Your task to perform on an android device: add a contact in the contacts app Image 0: 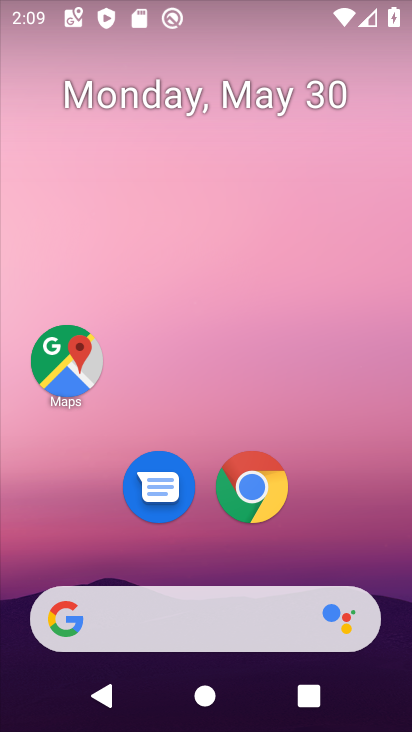
Step 0: drag from (234, 569) to (173, 8)
Your task to perform on an android device: add a contact in the contacts app Image 1: 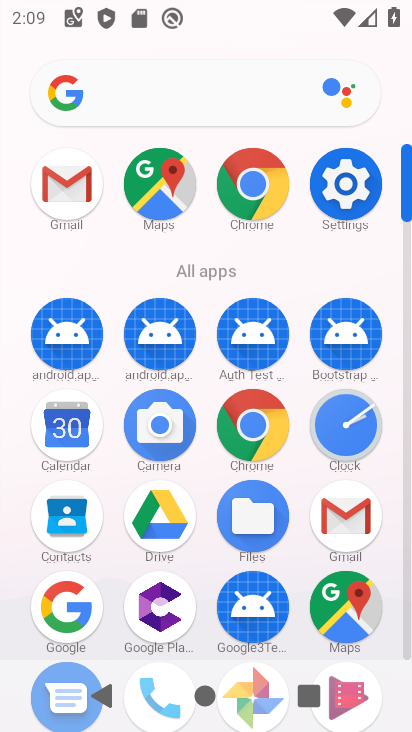
Step 1: click (71, 530)
Your task to perform on an android device: add a contact in the contacts app Image 2: 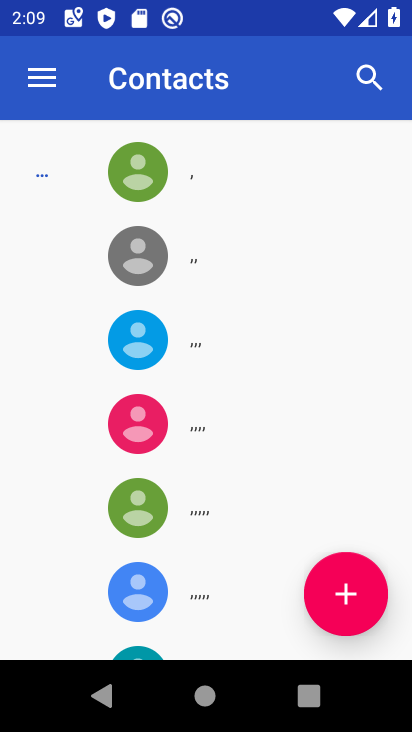
Step 2: click (337, 626)
Your task to perform on an android device: add a contact in the contacts app Image 3: 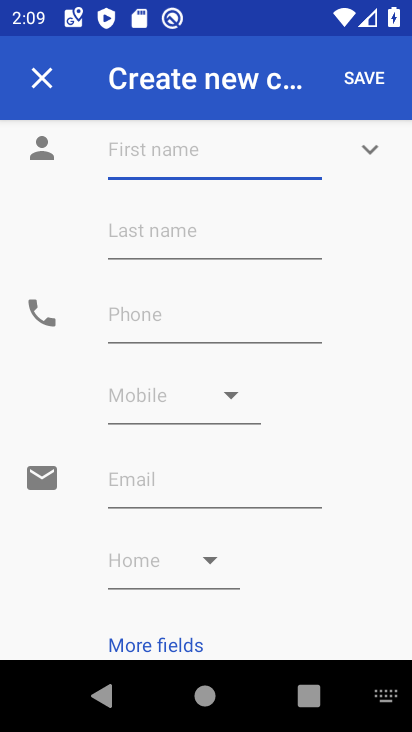
Step 3: type "Varuna"
Your task to perform on an android device: add a contact in the contacts app Image 4: 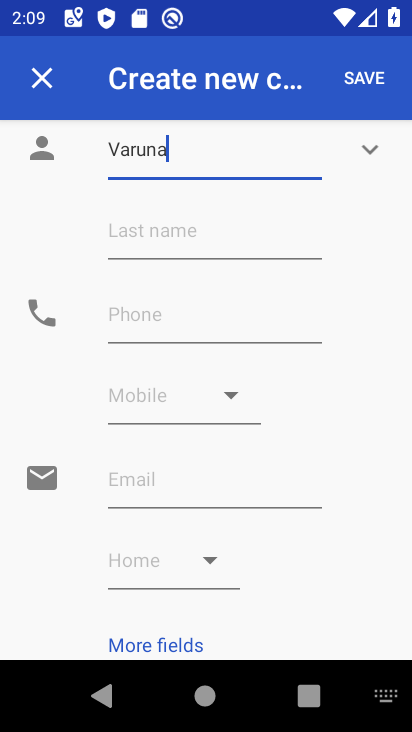
Step 4: click (250, 234)
Your task to perform on an android device: add a contact in the contacts app Image 5: 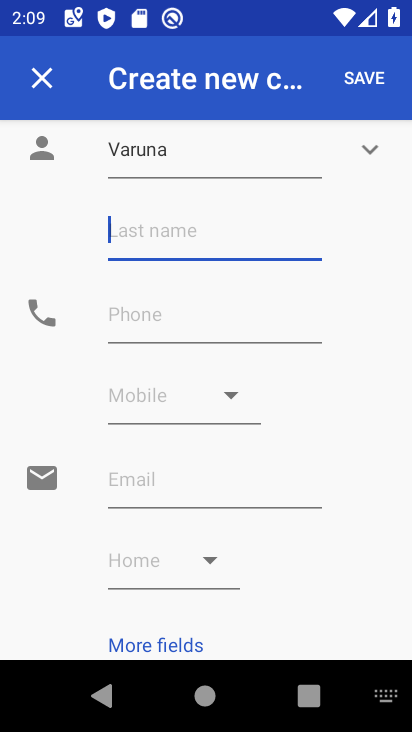
Step 5: type "Bhadra"
Your task to perform on an android device: add a contact in the contacts app Image 6: 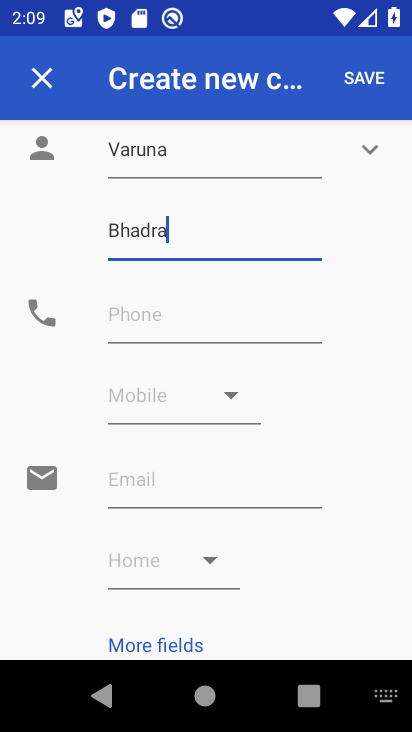
Step 6: click (217, 316)
Your task to perform on an android device: add a contact in the contacts app Image 7: 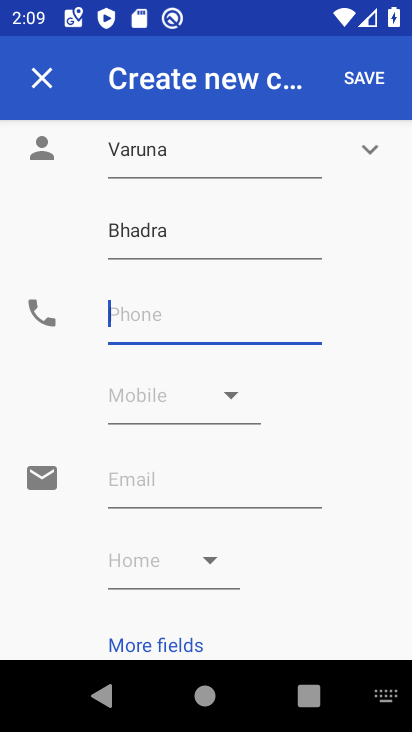
Step 7: type "7878787878"
Your task to perform on an android device: add a contact in the contacts app Image 8: 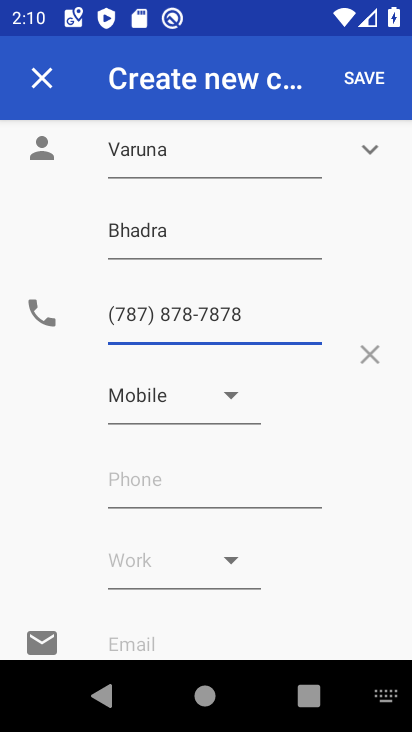
Step 8: click (369, 74)
Your task to perform on an android device: add a contact in the contacts app Image 9: 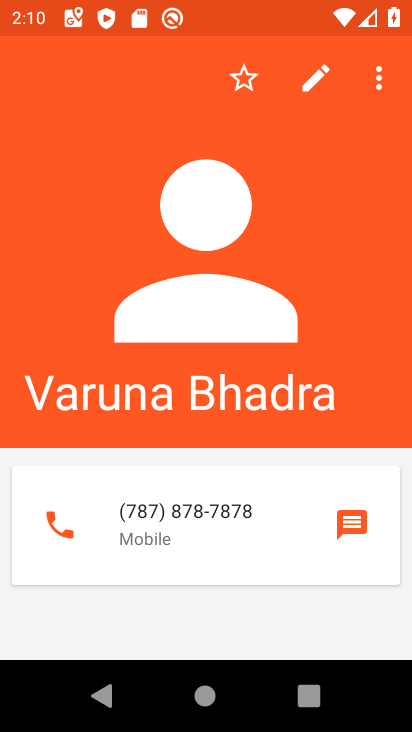
Step 9: task complete